Your task to perform on an android device: Show me productivity apps on the Play Store Image 0: 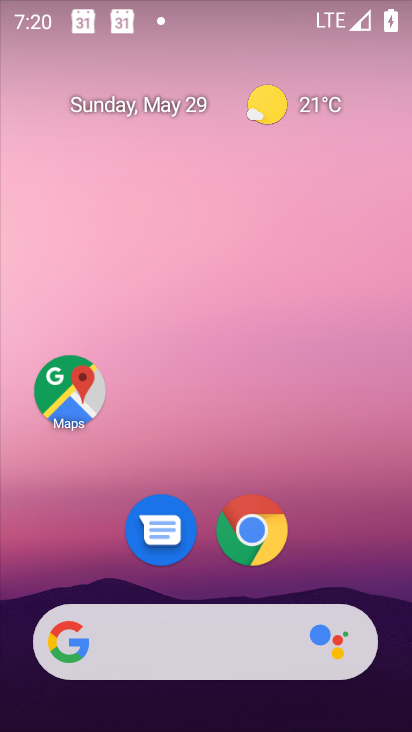
Step 0: drag from (289, 683) to (302, 243)
Your task to perform on an android device: Show me productivity apps on the Play Store Image 1: 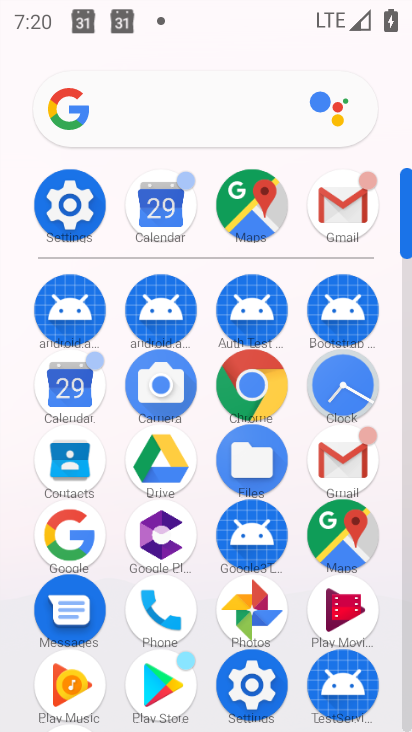
Step 1: click (166, 672)
Your task to perform on an android device: Show me productivity apps on the Play Store Image 2: 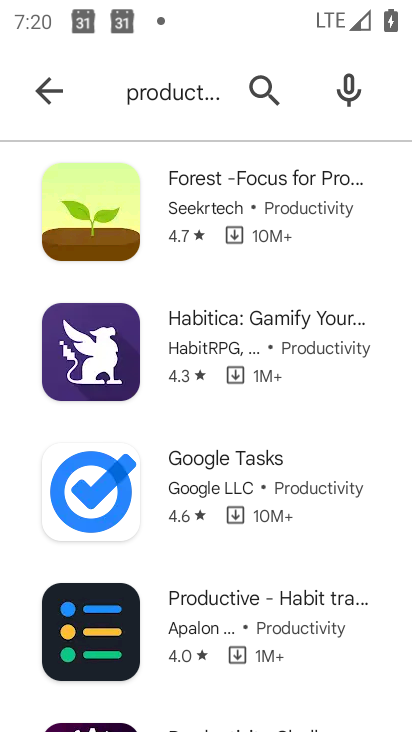
Step 2: click (192, 90)
Your task to perform on an android device: Show me productivity apps on the Play Store Image 3: 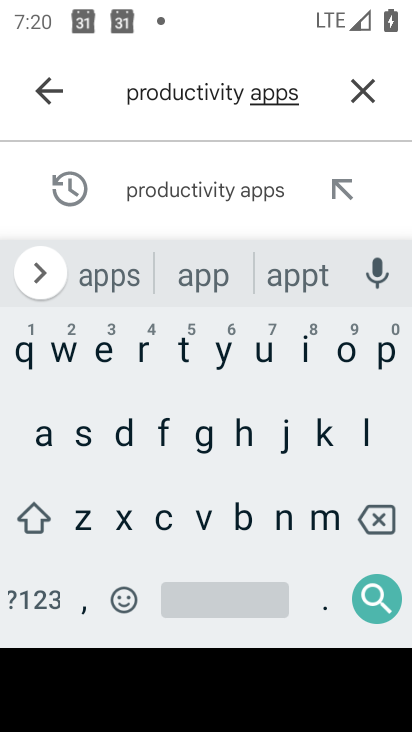
Step 3: click (236, 188)
Your task to perform on an android device: Show me productivity apps on the Play Store Image 4: 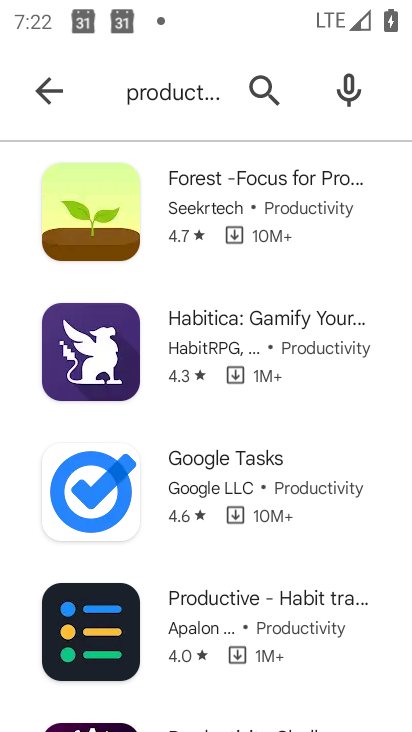
Step 4: task complete